Your task to perform on an android device: Toggle the flashlight Image 0: 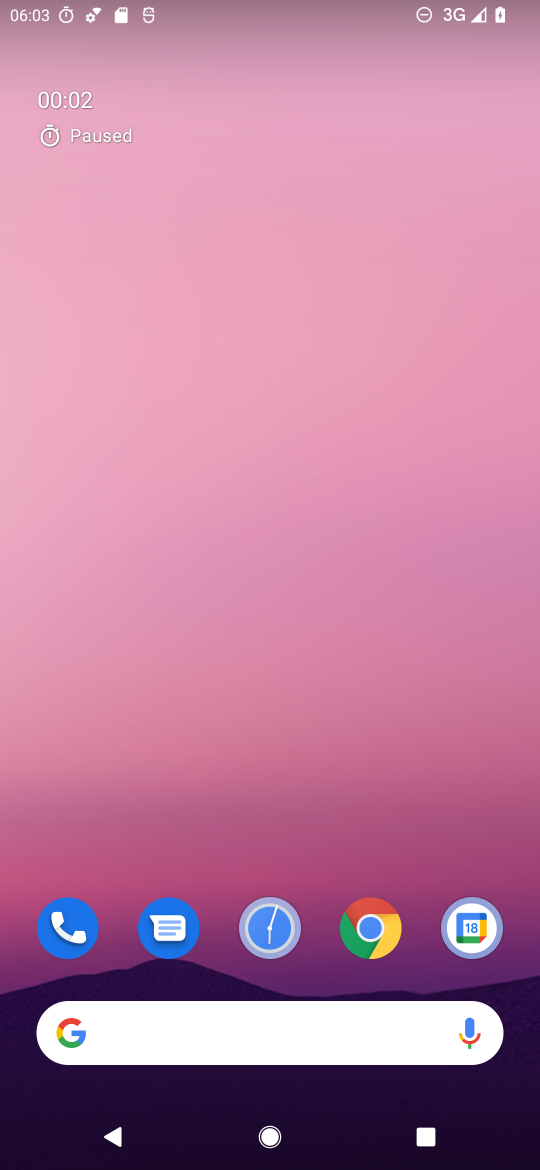
Step 0: drag from (351, 804) to (437, 38)
Your task to perform on an android device: Toggle the flashlight Image 1: 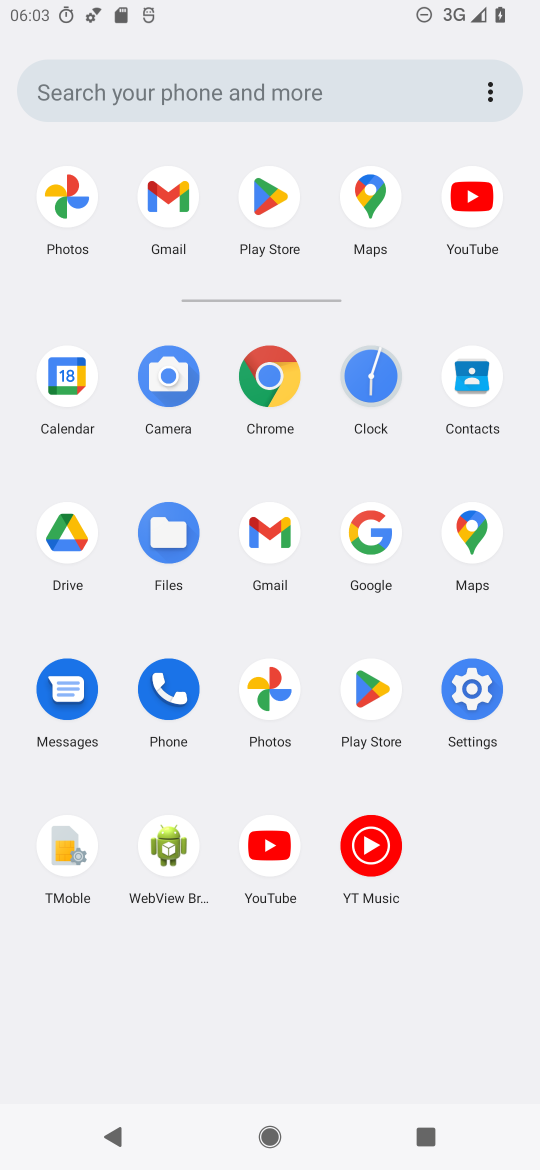
Step 1: click (474, 678)
Your task to perform on an android device: Toggle the flashlight Image 2: 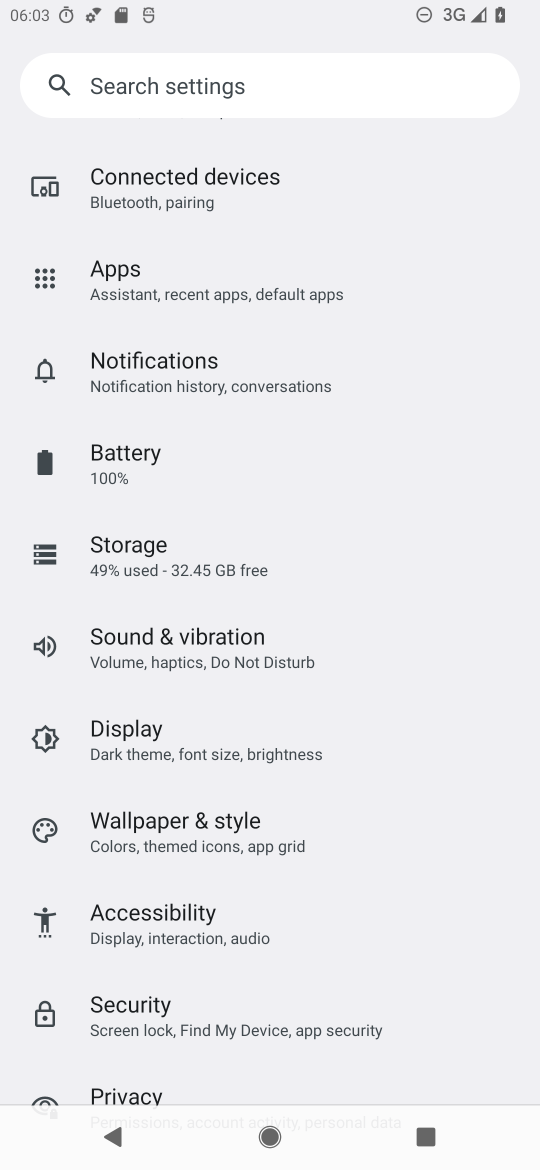
Step 2: drag from (433, 383) to (399, 971)
Your task to perform on an android device: Toggle the flashlight Image 3: 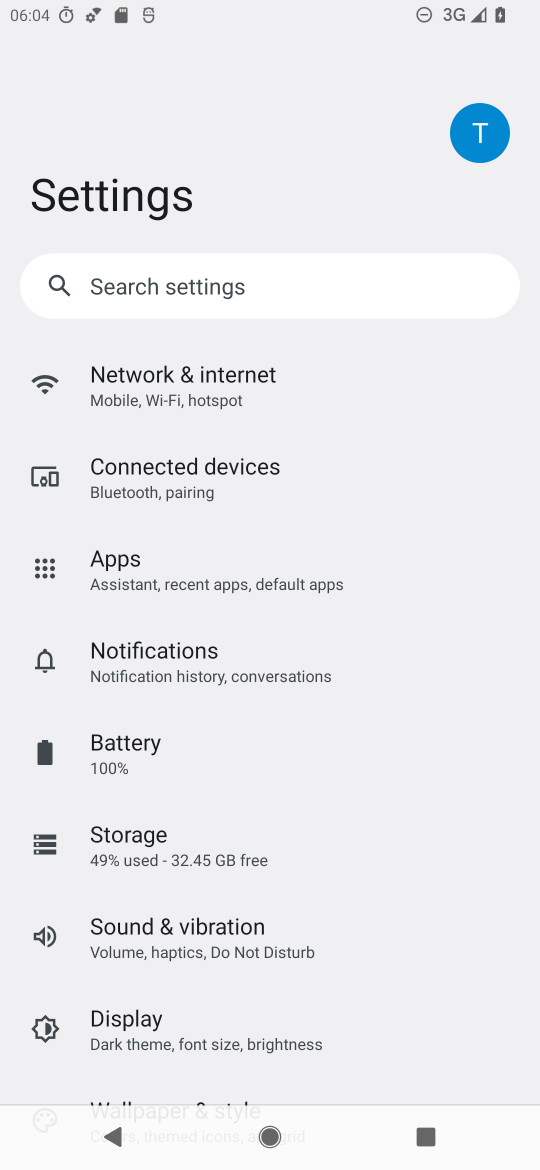
Step 3: click (143, 1026)
Your task to perform on an android device: Toggle the flashlight Image 4: 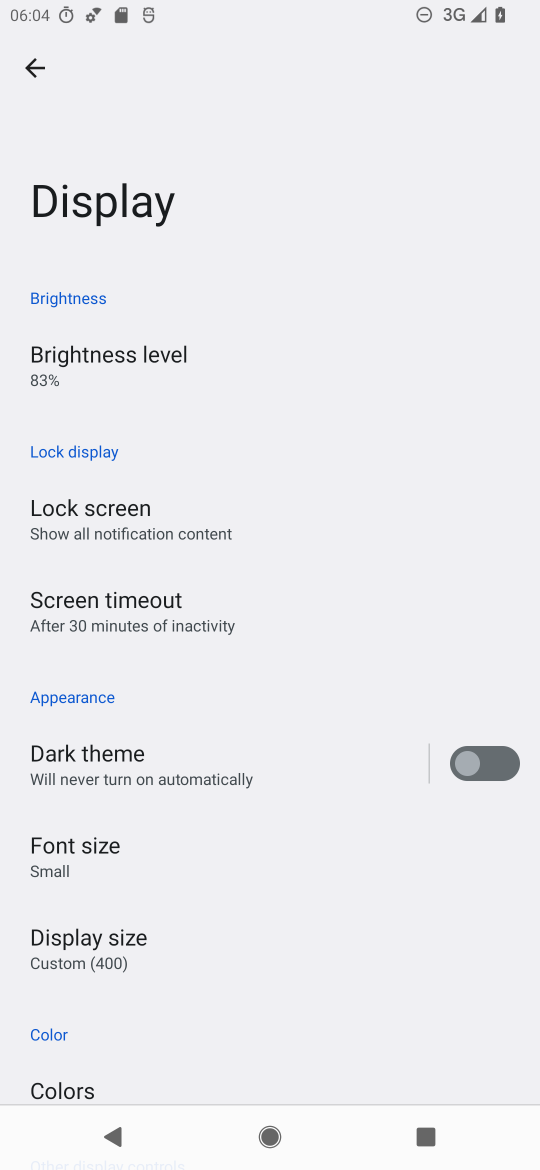
Step 4: task complete